Your task to perform on an android device: Do I have any events today? Image 0: 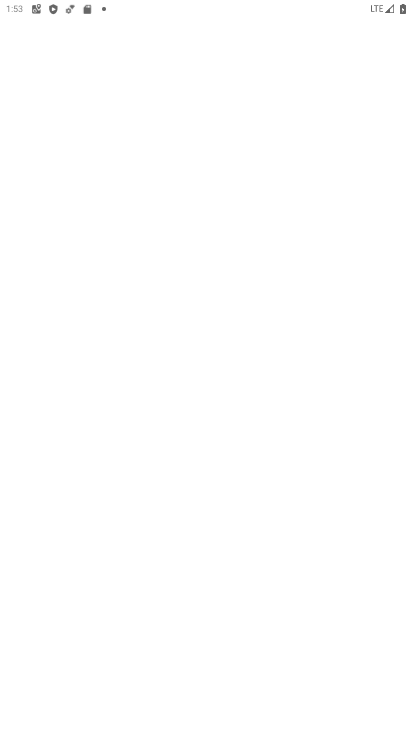
Step 0: press home button
Your task to perform on an android device: Do I have any events today? Image 1: 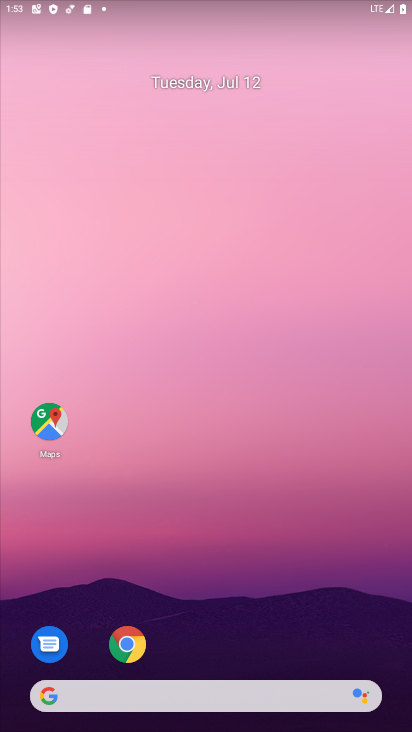
Step 1: drag from (172, 674) to (282, 508)
Your task to perform on an android device: Do I have any events today? Image 2: 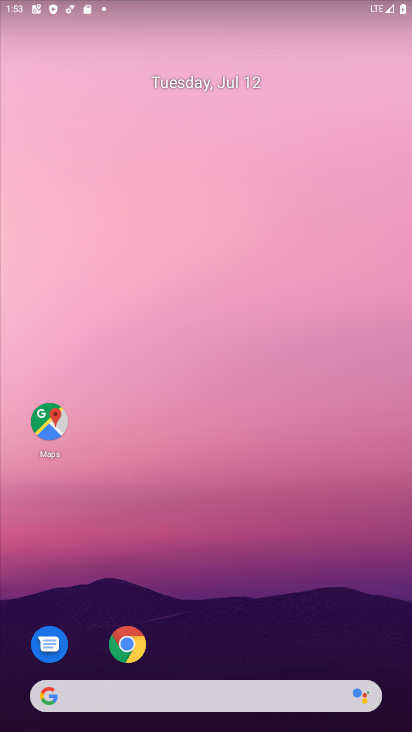
Step 2: drag from (224, 685) to (97, 110)
Your task to perform on an android device: Do I have any events today? Image 3: 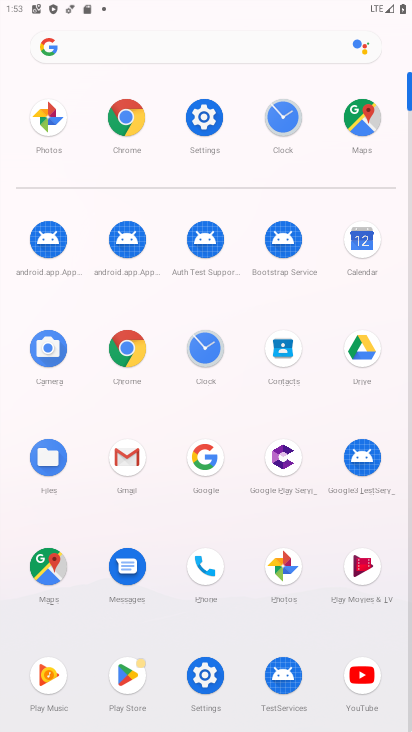
Step 3: click (360, 244)
Your task to perform on an android device: Do I have any events today? Image 4: 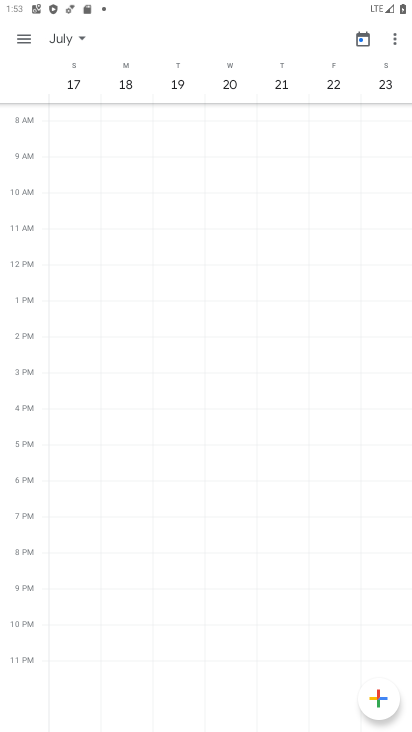
Step 4: click (360, 42)
Your task to perform on an android device: Do I have any events today? Image 5: 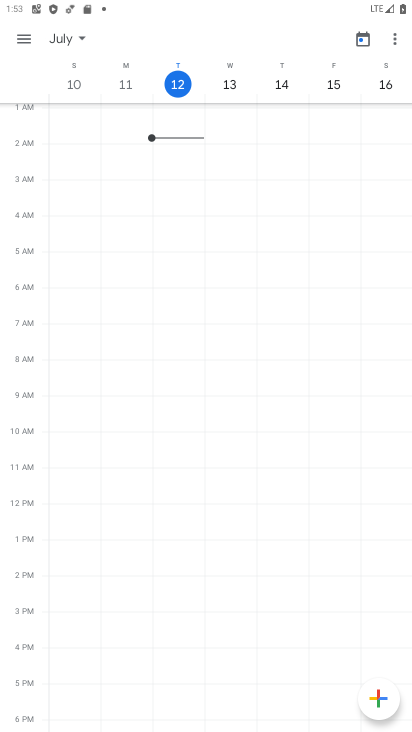
Step 5: click (173, 74)
Your task to perform on an android device: Do I have any events today? Image 6: 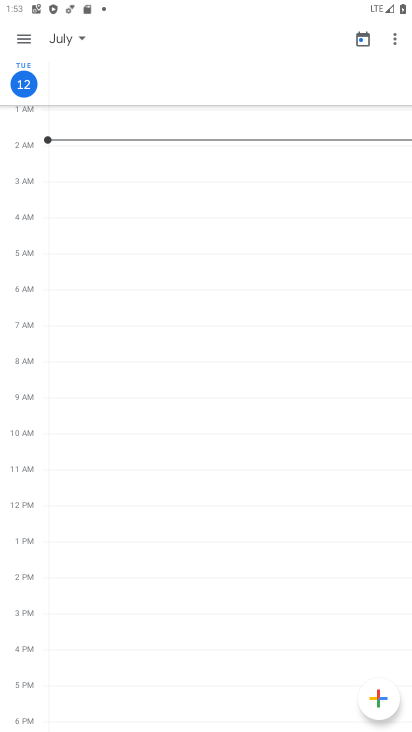
Step 6: task complete